Your task to perform on an android device: Open display settings Image 0: 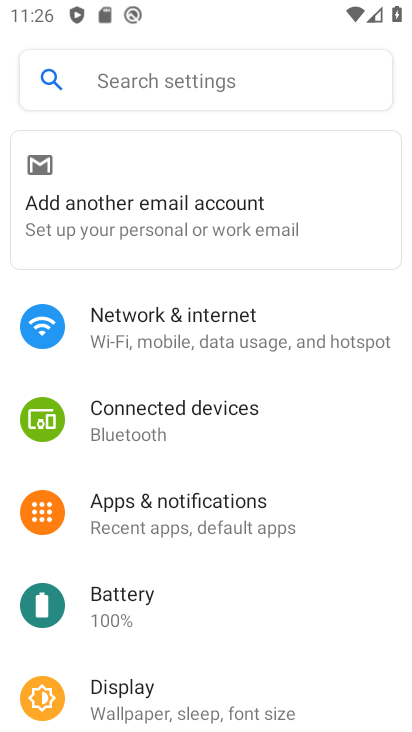
Step 0: drag from (145, 606) to (179, 439)
Your task to perform on an android device: Open display settings Image 1: 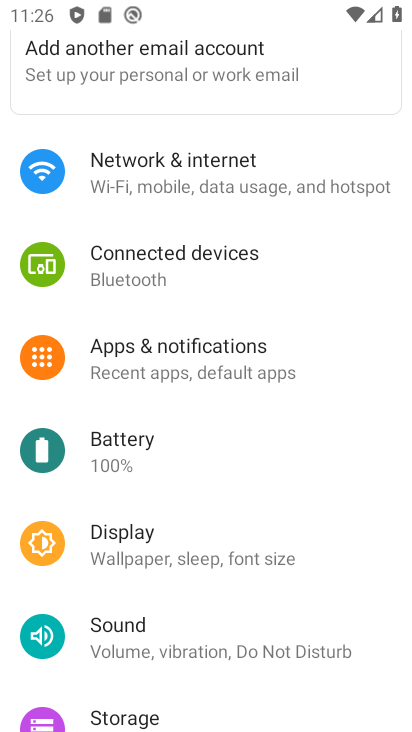
Step 1: click (153, 531)
Your task to perform on an android device: Open display settings Image 2: 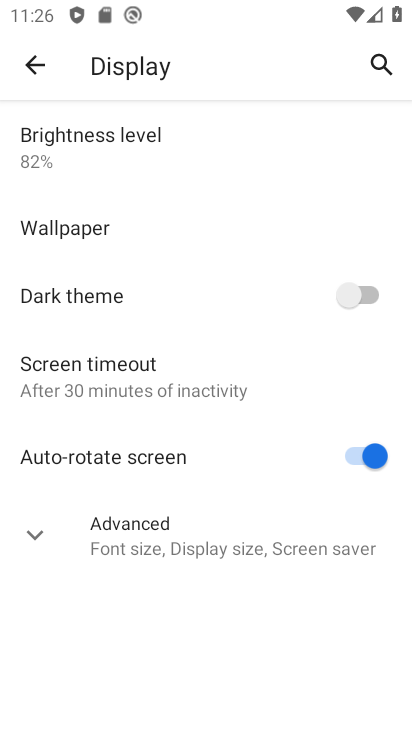
Step 2: task complete